Your task to perform on an android device: set the timer Image 0: 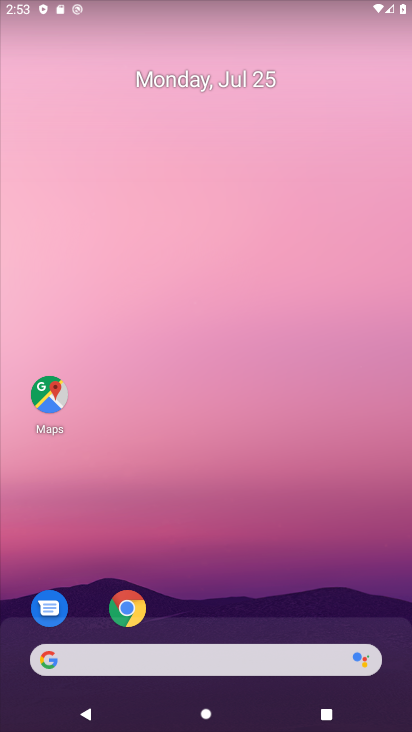
Step 0: drag from (161, 650) to (204, 0)
Your task to perform on an android device: set the timer Image 1: 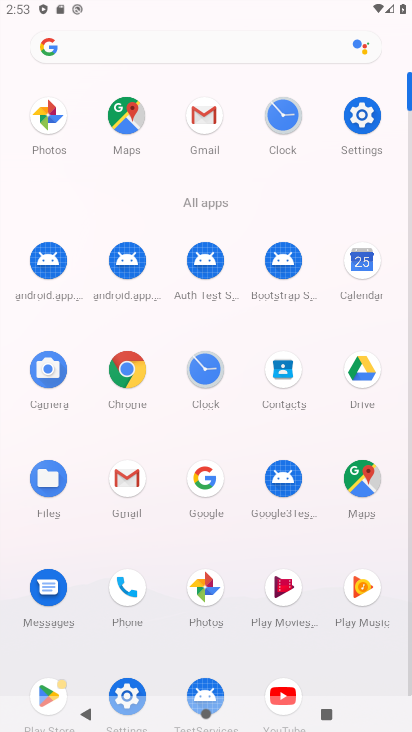
Step 1: click (196, 384)
Your task to perform on an android device: set the timer Image 2: 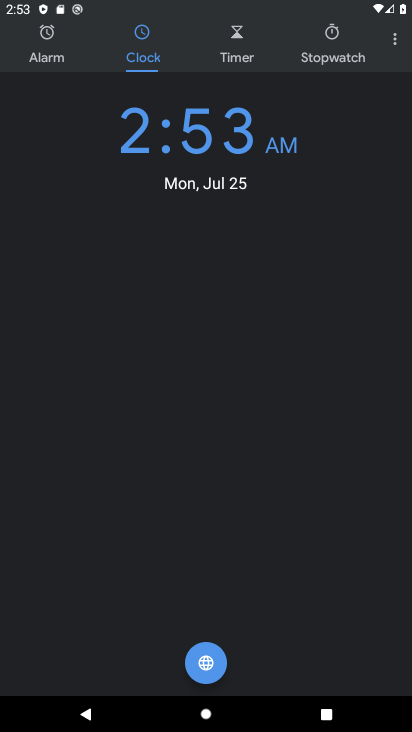
Step 2: click (235, 43)
Your task to perform on an android device: set the timer Image 3: 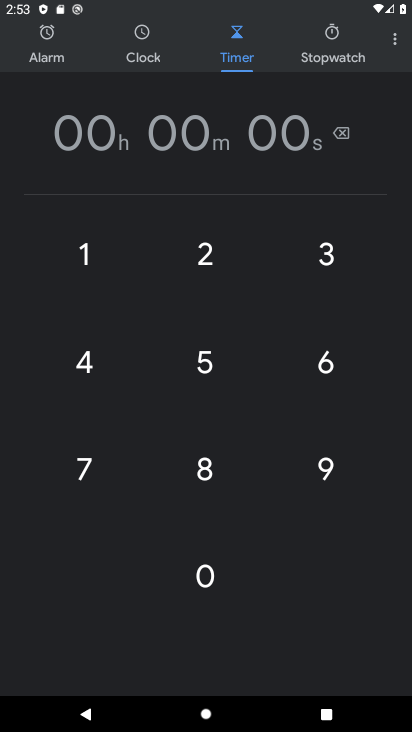
Step 3: click (236, 481)
Your task to perform on an android device: set the timer Image 4: 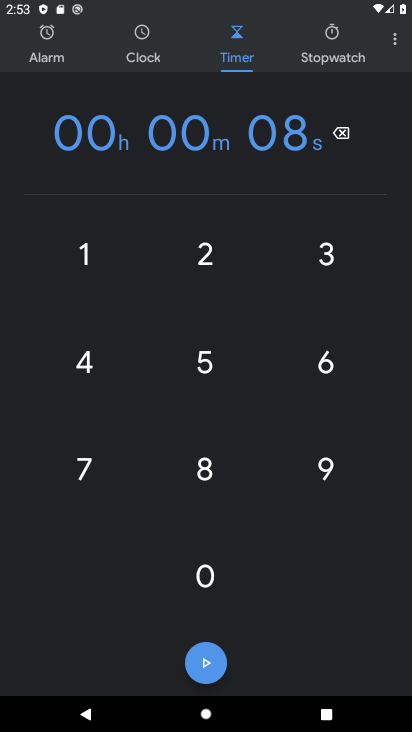
Step 4: click (90, 450)
Your task to perform on an android device: set the timer Image 5: 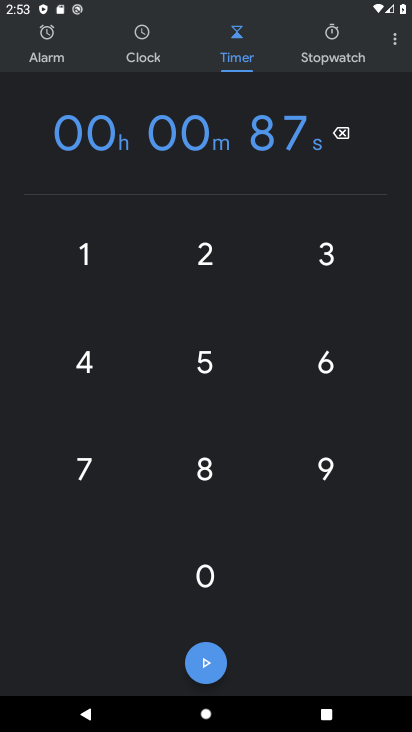
Step 5: click (79, 274)
Your task to perform on an android device: set the timer Image 6: 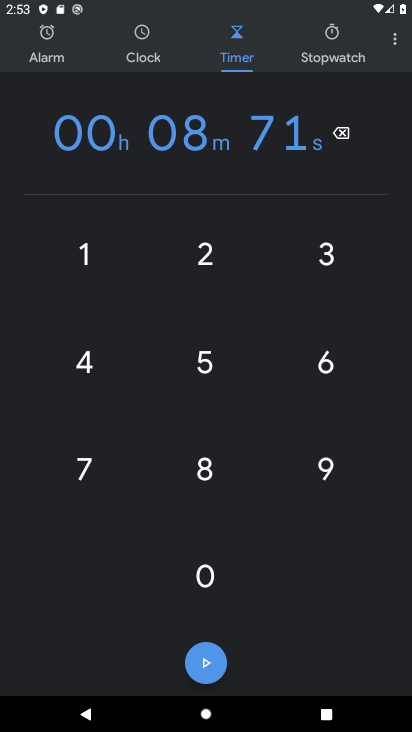
Step 6: click (199, 668)
Your task to perform on an android device: set the timer Image 7: 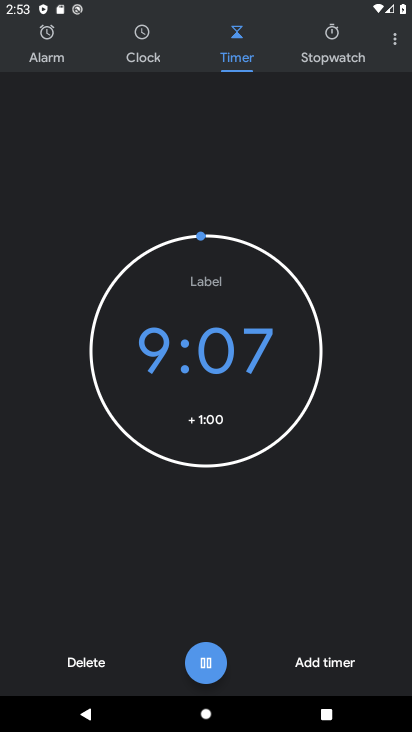
Step 7: task complete